Your task to perform on an android device: turn off data saver in the chrome app Image 0: 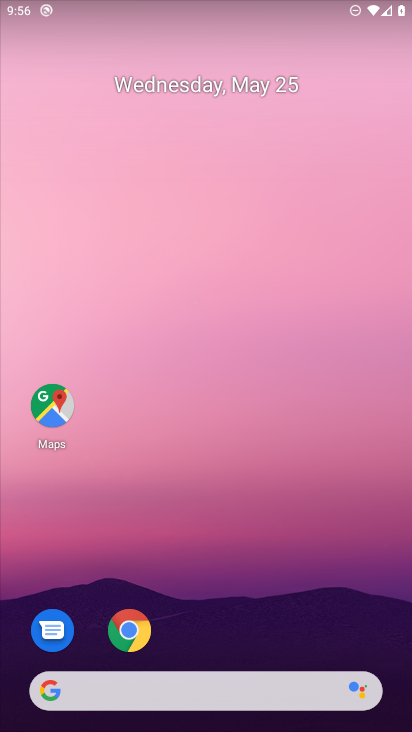
Step 0: click (133, 630)
Your task to perform on an android device: turn off data saver in the chrome app Image 1: 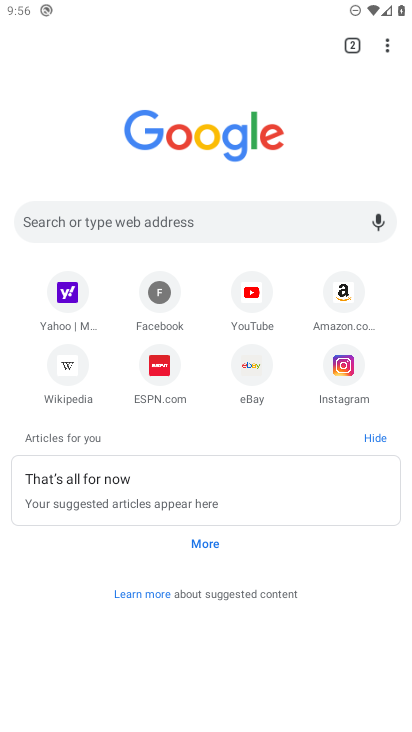
Step 1: click (386, 49)
Your task to perform on an android device: turn off data saver in the chrome app Image 2: 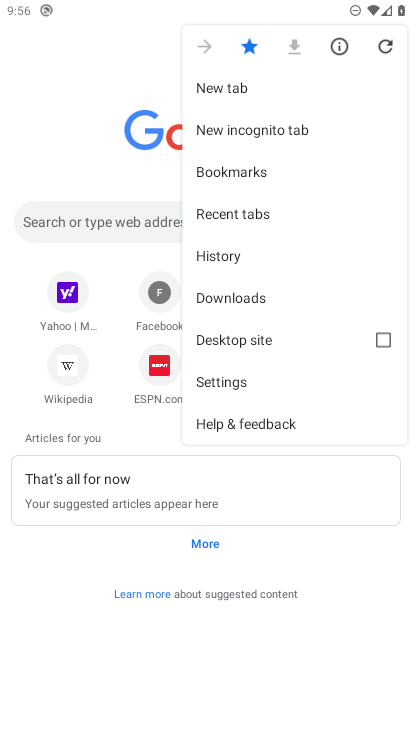
Step 2: click (229, 377)
Your task to perform on an android device: turn off data saver in the chrome app Image 3: 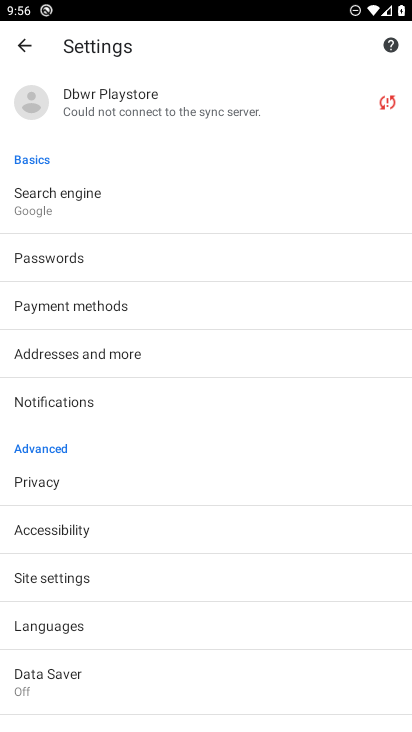
Step 3: click (62, 672)
Your task to perform on an android device: turn off data saver in the chrome app Image 4: 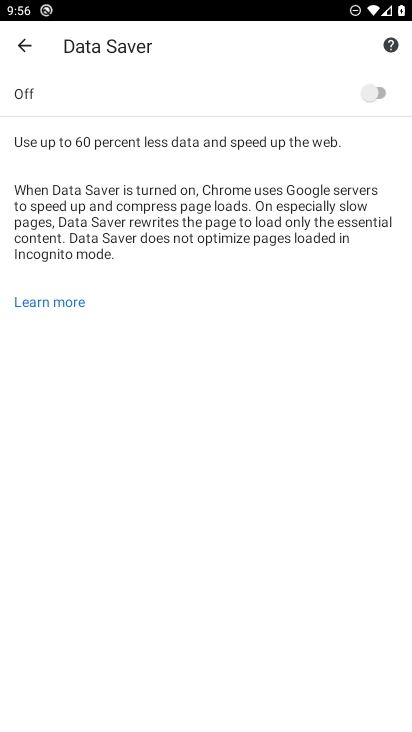
Step 4: task complete